Your task to perform on an android device: Is it going to rain tomorrow? Image 0: 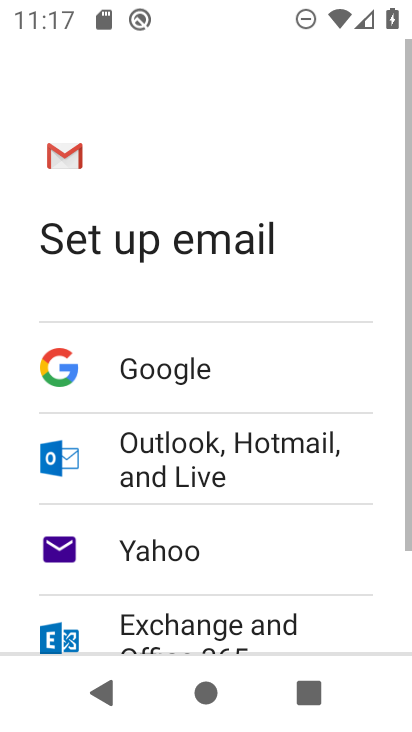
Step 0: press home button
Your task to perform on an android device: Is it going to rain tomorrow? Image 1: 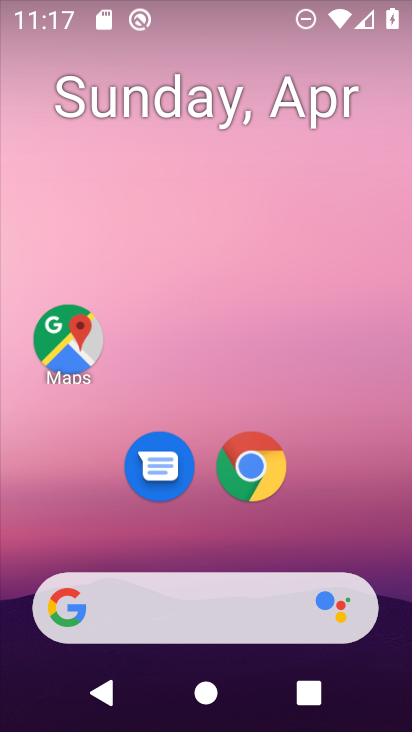
Step 1: click (192, 601)
Your task to perform on an android device: Is it going to rain tomorrow? Image 2: 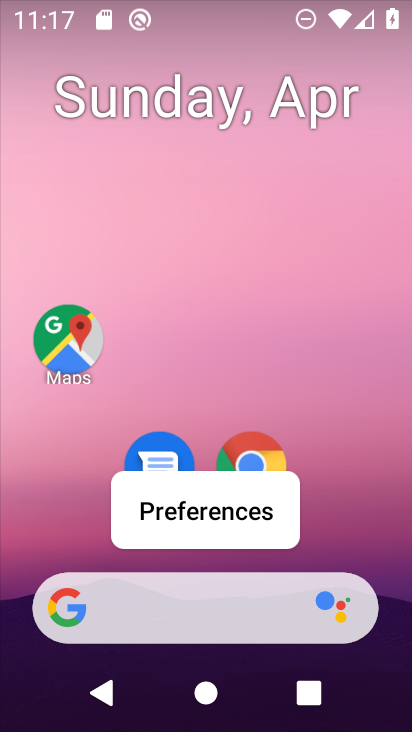
Step 2: click (221, 618)
Your task to perform on an android device: Is it going to rain tomorrow? Image 3: 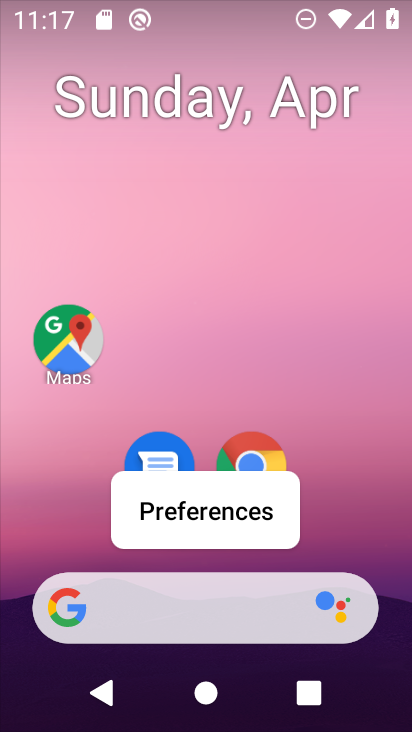
Step 3: click (239, 601)
Your task to perform on an android device: Is it going to rain tomorrow? Image 4: 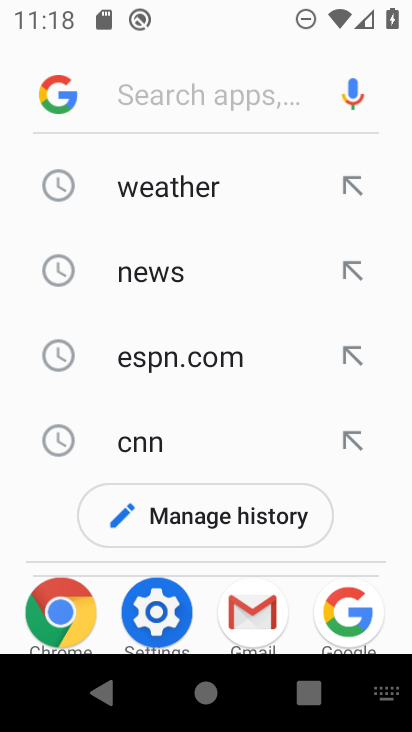
Step 4: click (178, 182)
Your task to perform on an android device: Is it going to rain tomorrow? Image 5: 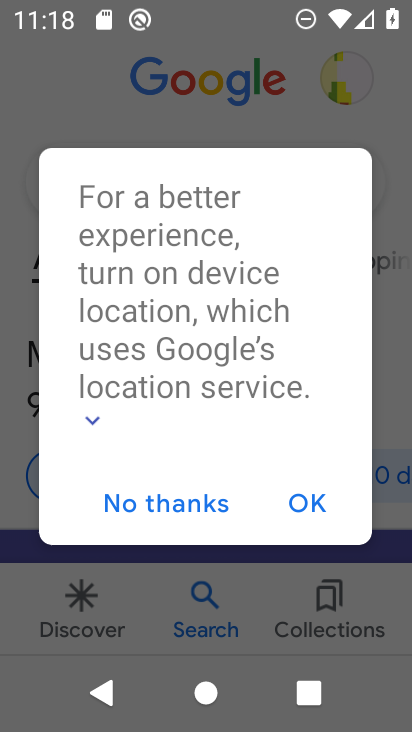
Step 5: click (169, 510)
Your task to perform on an android device: Is it going to rain tomorrow? Image 6: 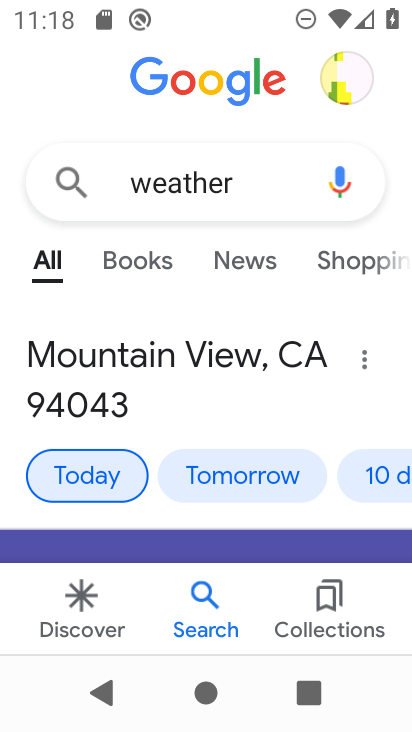
Step 6: click (282, 479)
Your task to perform on an android device: Is it going to rain tomorrow? Image 7: 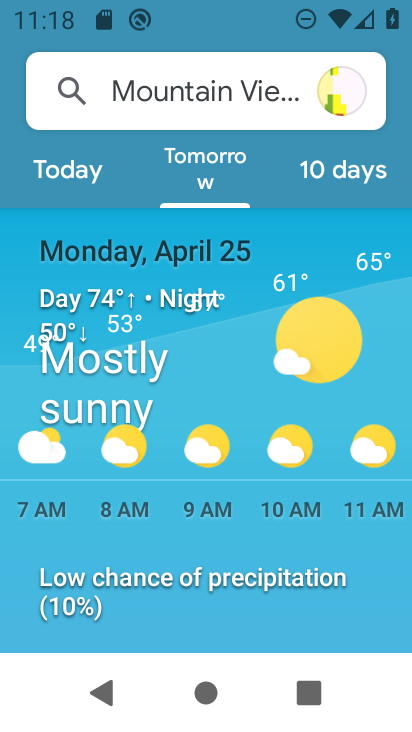
Step 7: task complete